Your task to perform on an android device: add a contact in the contacts app Image 0: 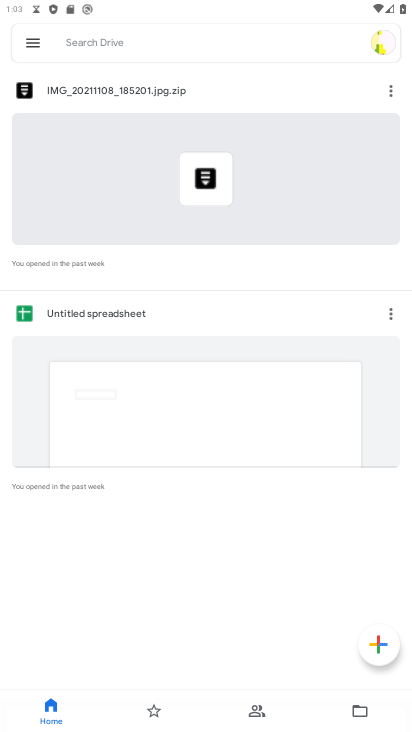
Step 0: press home button
Your task to perform on an android device: add a contact in the contacts app Image 1: 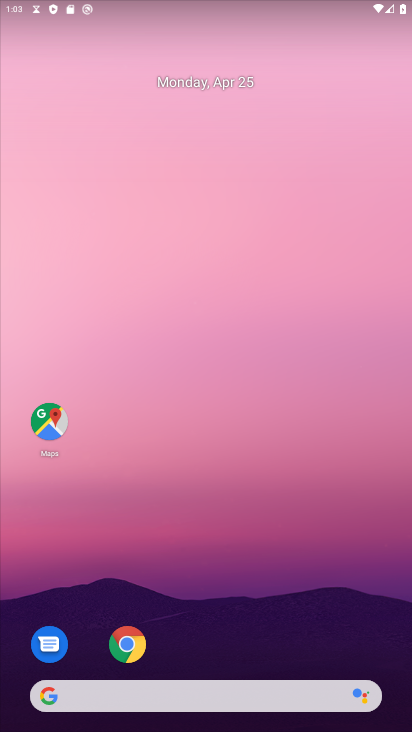
Step 1: drag from (343, 625) to (336, 15)
Your task to perform on an android device: add a contact in the contacts app Image 2: 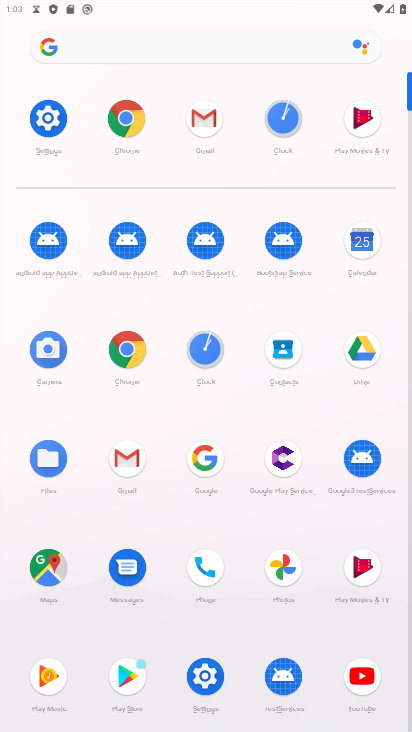
Step 2: click (276, 349)
Your task to perform on an android device: add a contact in the contacts app Image 3: 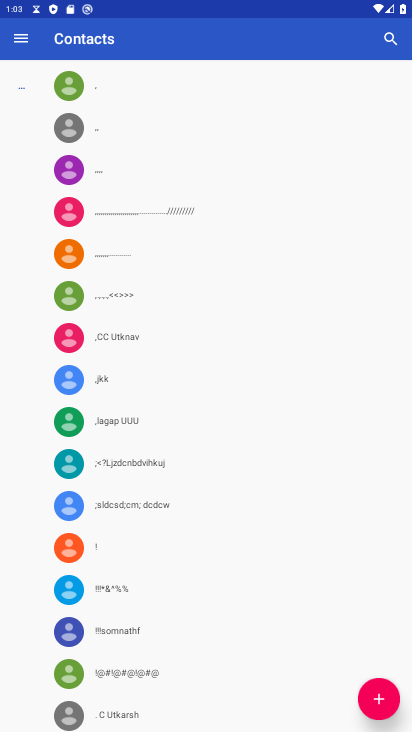
Step 3: click (371, 708)
Your task to perform on an android device: add a contact in the contacts app Image 4: 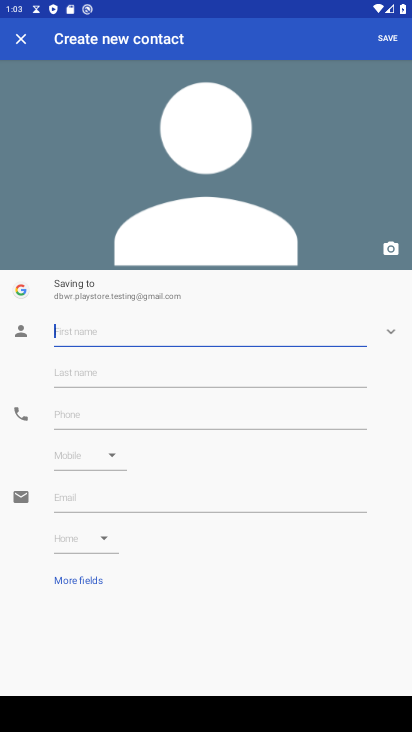
Step 4: click (74, 332)
Your task to perform on an android device: add a contact in the contacts app Image 5: 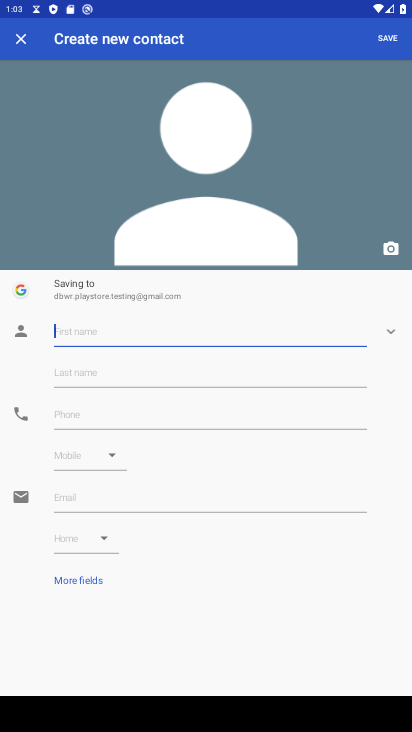
Step 5: type "sunny"
Your task to perform on an android device: add a contact in the contacts app Image 6: 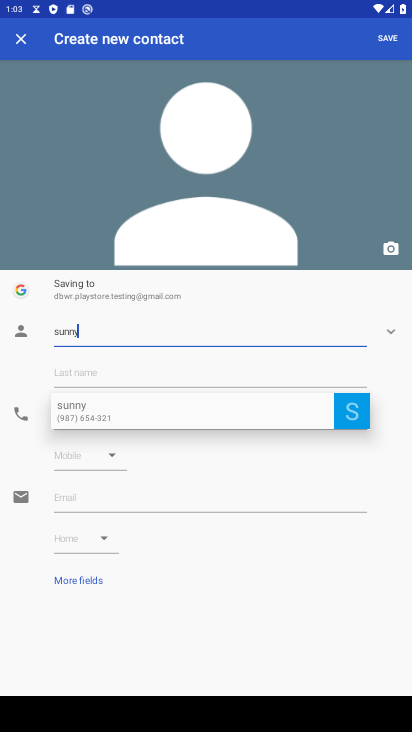
Step 6: click (391, 403)
Your task to perform on an android device: add a contact in the contacts app Image 7: 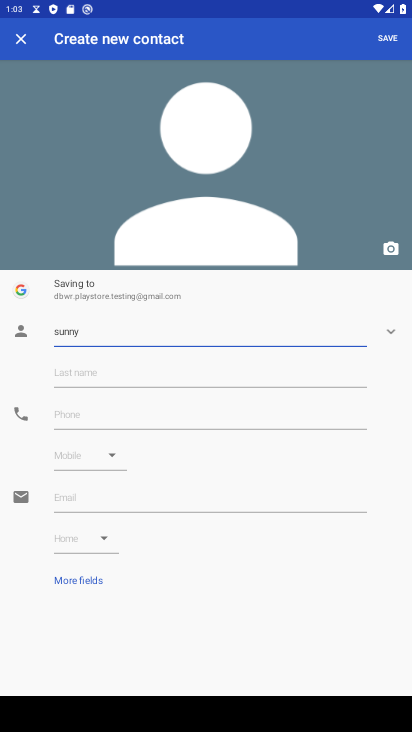
Step 7: click (187, 399)
Your task to perform on an android device: add a contact in the contacts app Image 8: 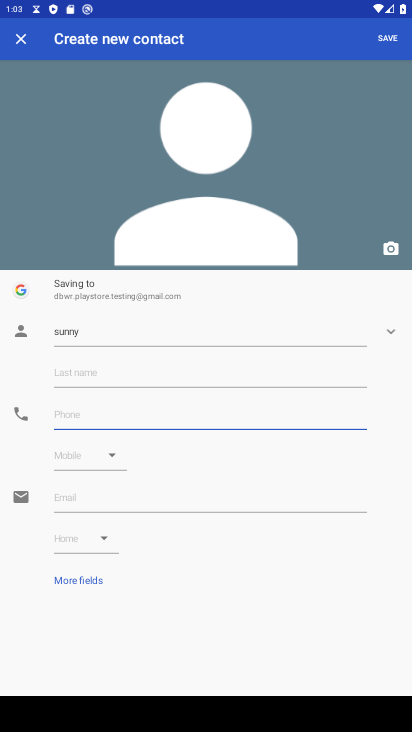
Step 8: type "9876544"
Your task to perform on an android device: add a contact in the contacts app Image 9: 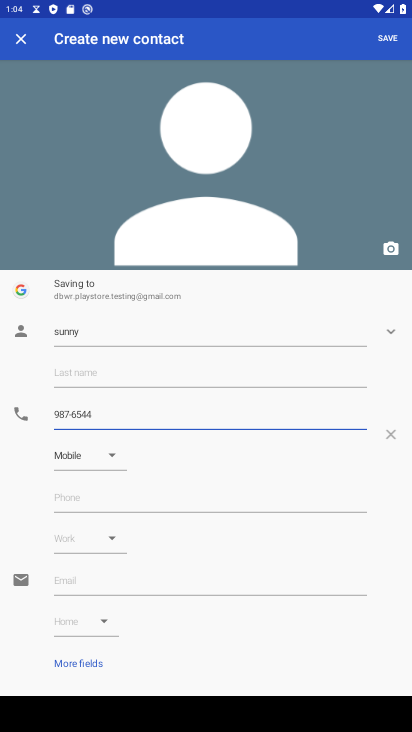
Step 9: click (383, 41)
Your task to perform on an android device: add a contact in the contacts app Image 10: 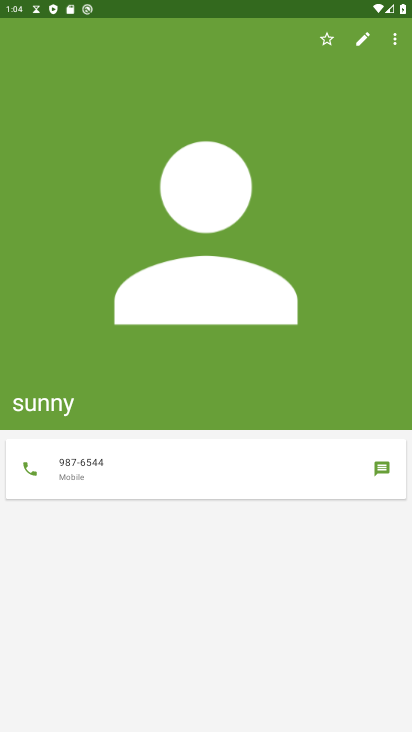
Step 10: task complete